Your task to perform on an android device: create a new album in the google photos Image 0: 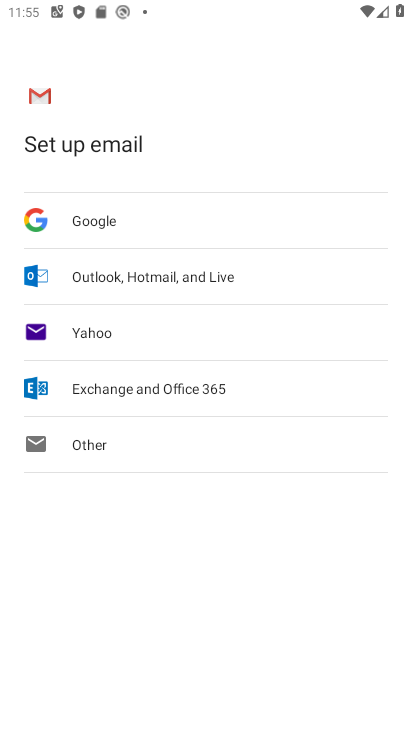
Step 0: press home button
Your task to perform on an android device: create a new album in the google photos Image 1: 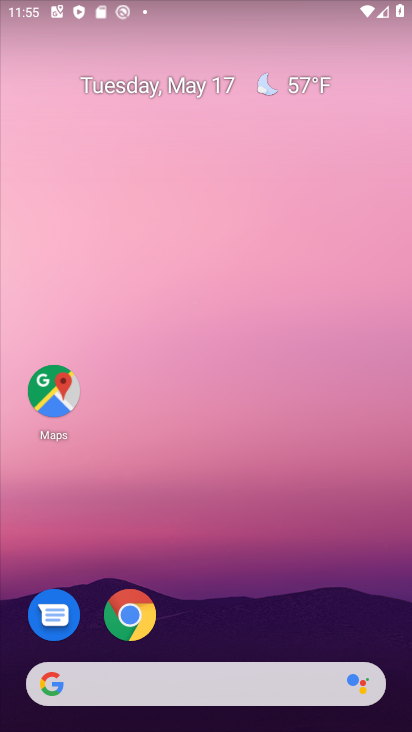
Step 1: drag from (339, 630) to (343, 5)
Your task to perform on an android device: create a new album in the google photos Image 2: 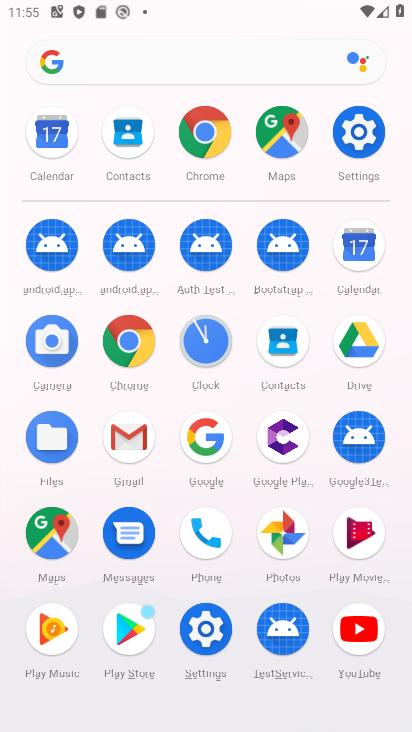
Step 2: click (299, 533)
Your task to perform on an android device: create a new album in the google photos Image 3: 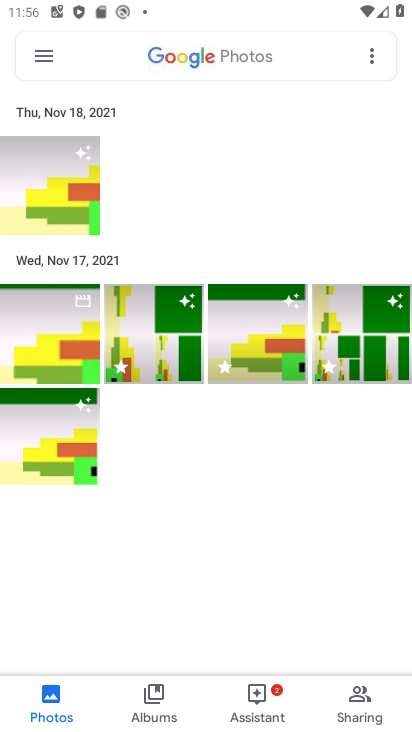
Step 3: click (42, 204)
Your task to perform on an android device: create a new album in the google photos Image 4: 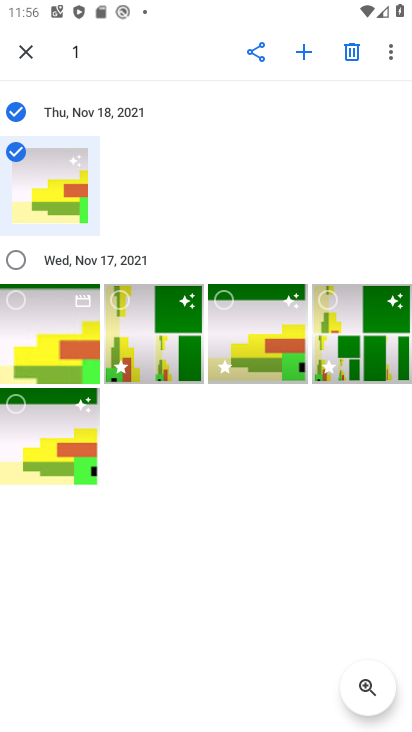
Step 4: click (314, 47)
Your task to perform on an android device: create a new album in the google photos Image 5: 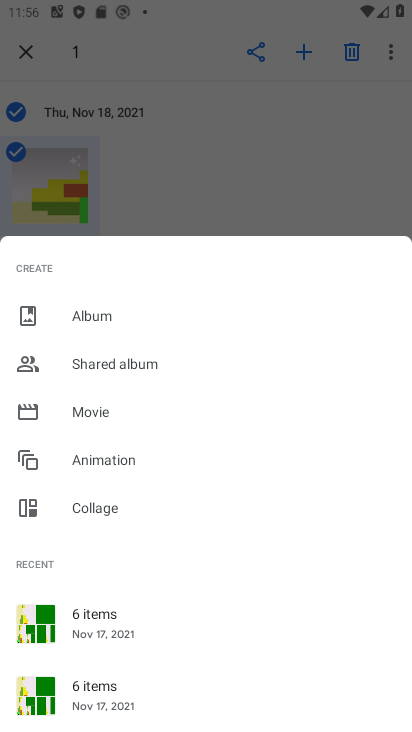
Step 5: click (117, 318)
Your task to perform on an android device: create a new album in the google photos Image 6: 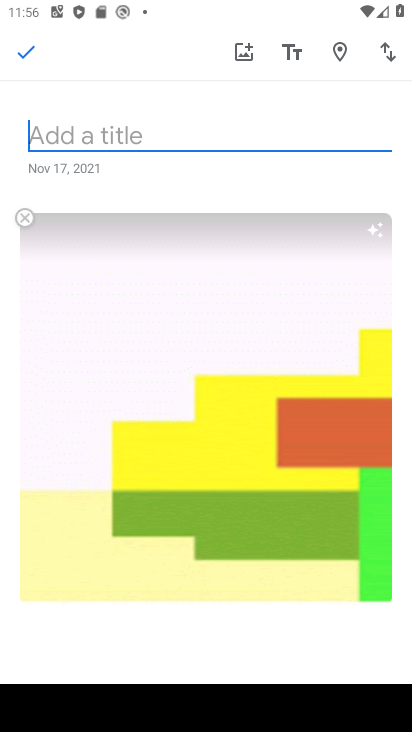
Step 6: click (163, 131)
Your task to perform on an android device: create a new album in the google photos Image 7: 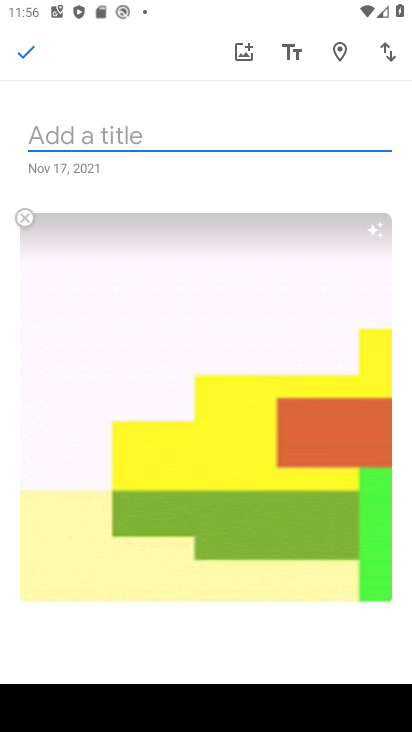
Step 7: type "MN"
Your task to perform on an android device: create a new album in the google photos Image 8: 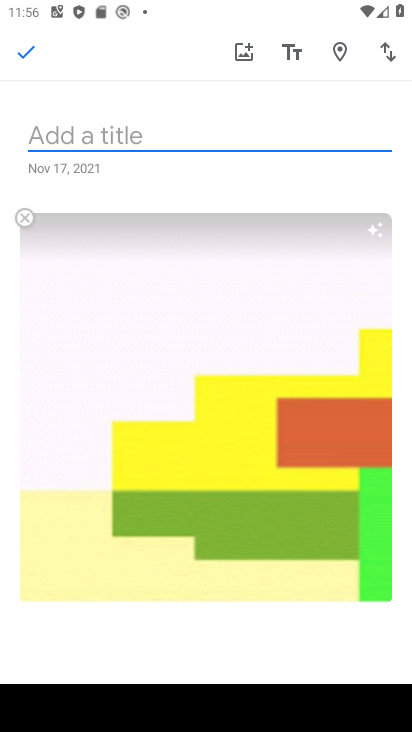
Step 8: click (26, 45)
Your task to perform on an android device: create a new album in the google photos Image 9: 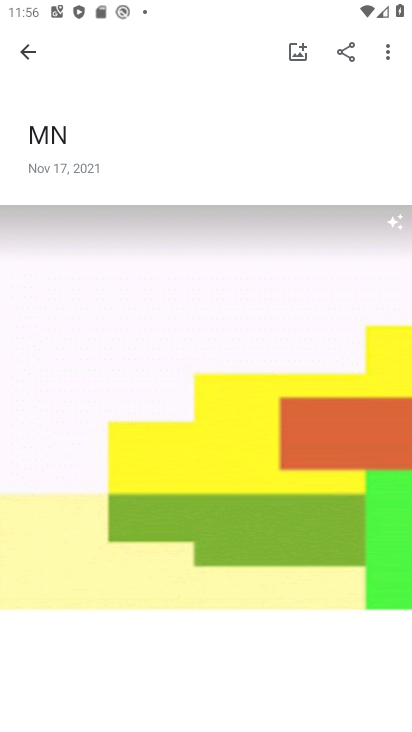
Step 9: task complete